Your task to perform on an android device: delete location history Image 0: 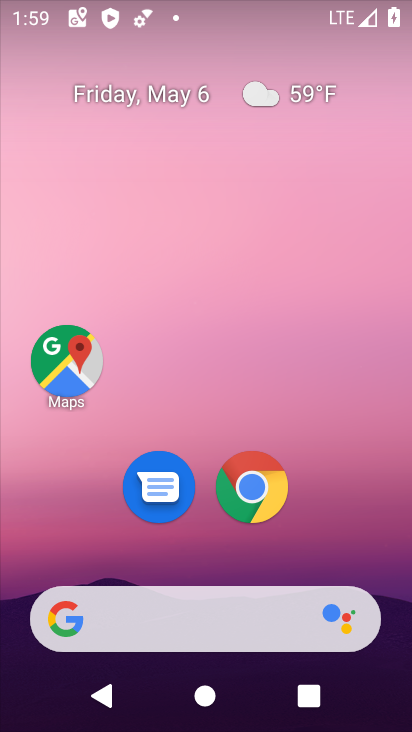
Step 0: drag from (281, 650) to (289, 183)
Your task to perform on an android device: delete location history Image 1: 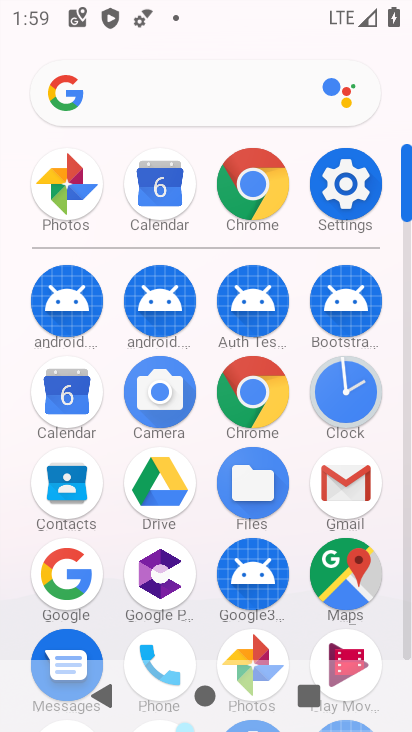
Step 1: click (343, 196)
Your task to perform on an android device: delete location history Image 2: 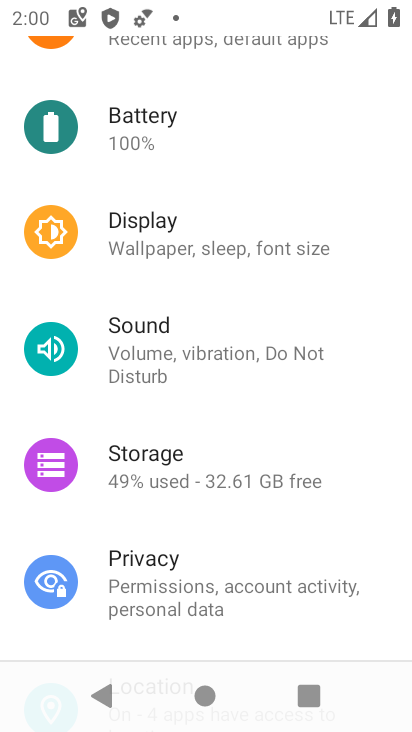
Step 2: drag from (182, 540) to (217, 272)
Your task to perform on an android device: delete location history Image 3: 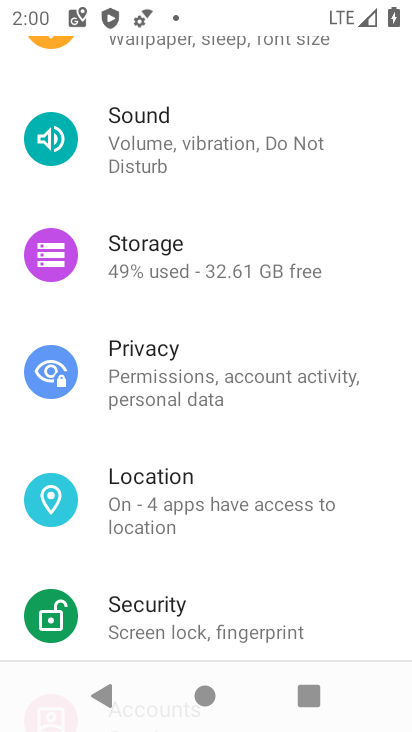
Step 3: click (259, 500)
Your task to perform on an android device: delete location history Image 4: 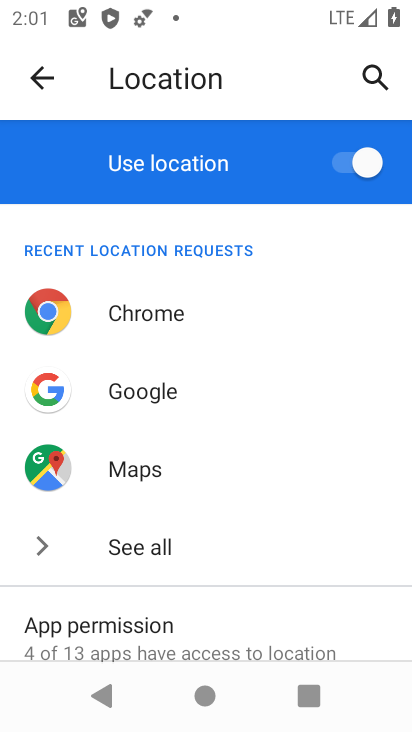
Step 4: drag from (177, 557) to (285, 12)
Your task to perform on an android device: delete location history Image 5: 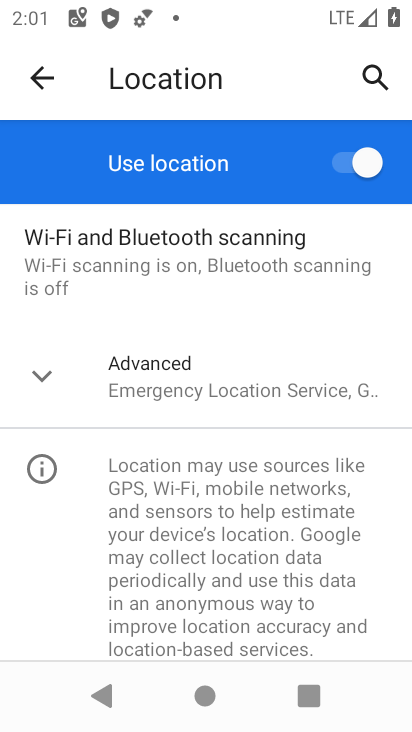
Step 5: click (233, 377)
Your task to perform on an android device: delete location history Image 6: 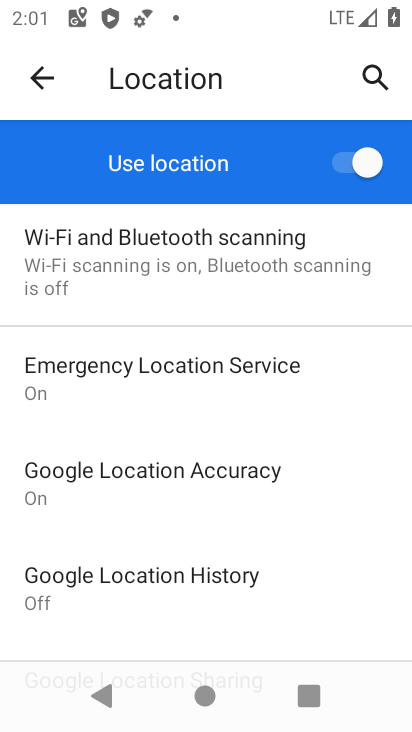
Step 6: drag from (201, 538) to (239, 265)
Your task to perform on an android device: delete location history Image 7: 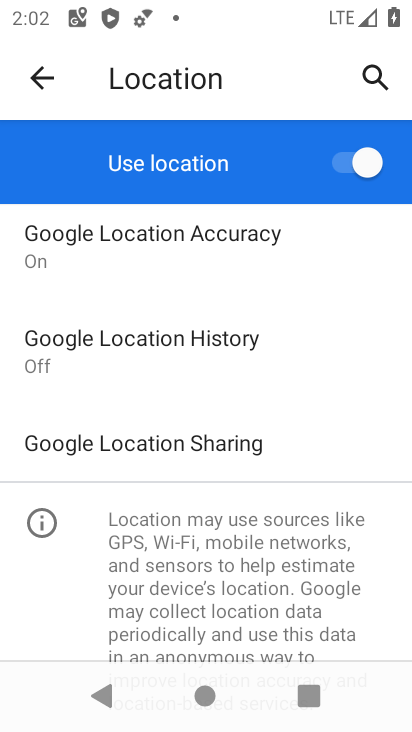
Step 7: click (233, 353)
Your task to perform on an android device: delete location history Image 8: 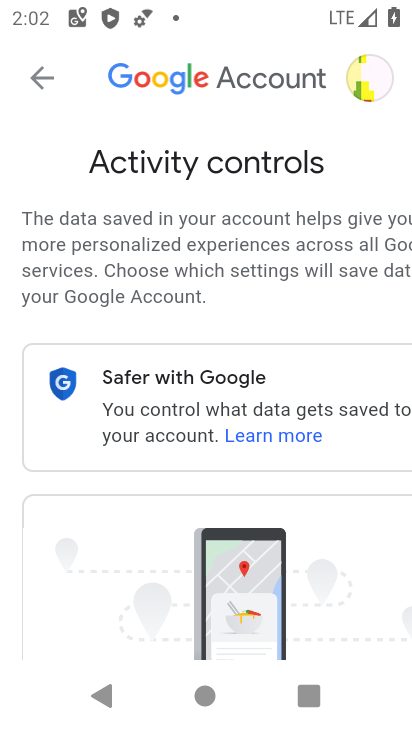
Step 8: drag from (233, 533) to (282, 84)
Your task to perform on an android device: delete location history Image 9: 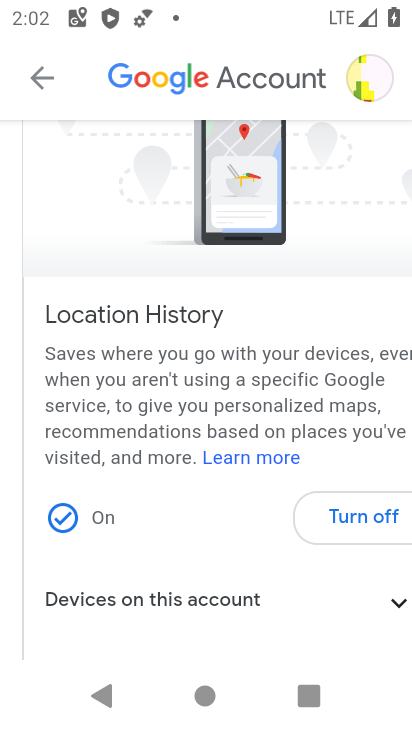
Step 9: drag from (176, 564) to (162, 244)
Your task to perform on an android device: delete location history Image 10: 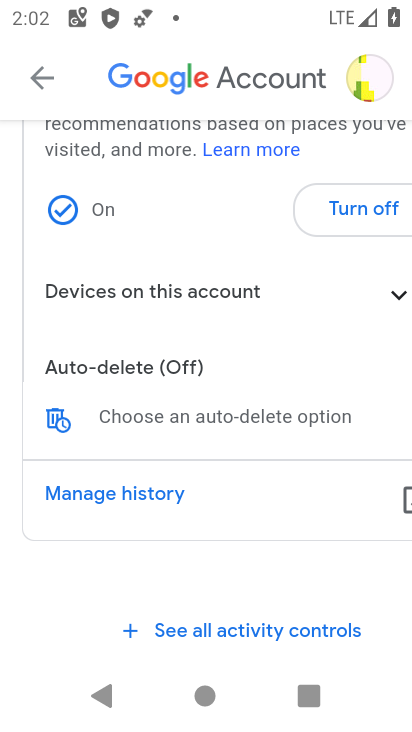
Step 10: click (205, 413)
Your task to perform on an android device: delete location history Image 11: 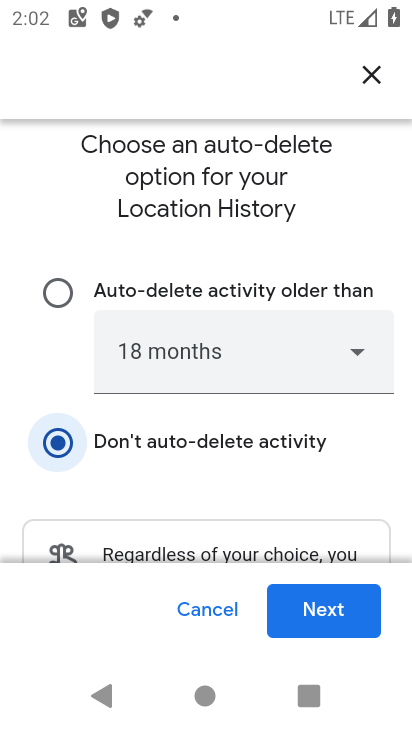
Step 11: click (354, 617)
Your task to perform on an android device: delete location history Image 12: 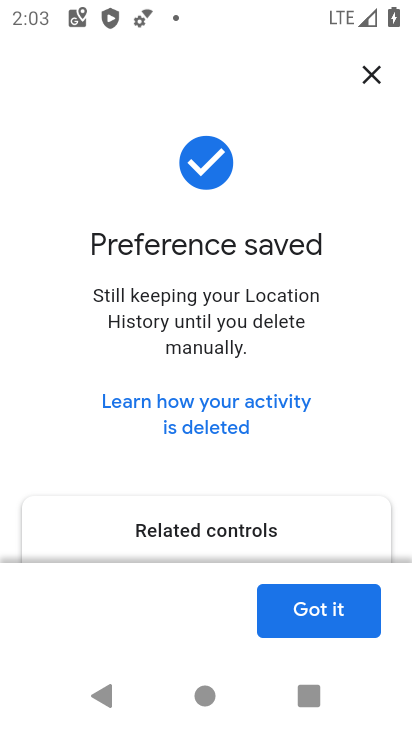
Step 12: click (353, 617)
Your task to perform on an android device: delete location history Image 13: 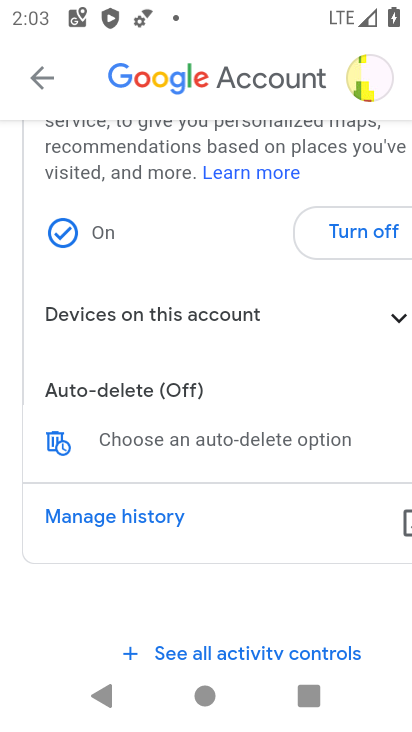
Step 13: task complete